Your task to perform on an android device: Open privacy settings Image 0: 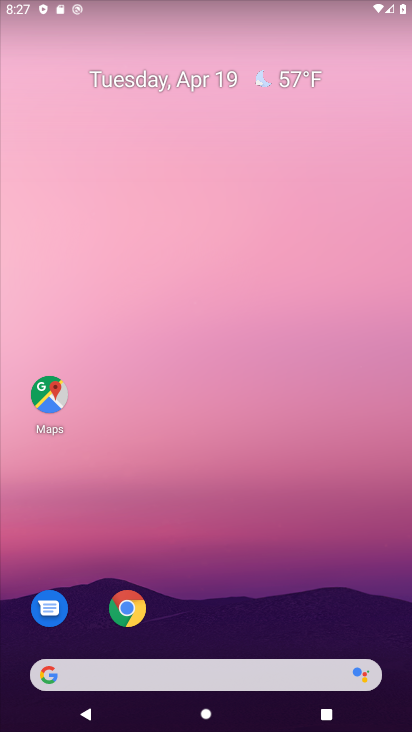
Step 0: click (126, 609)
Your task to perform on an android device: Open privacy settings Image 1: 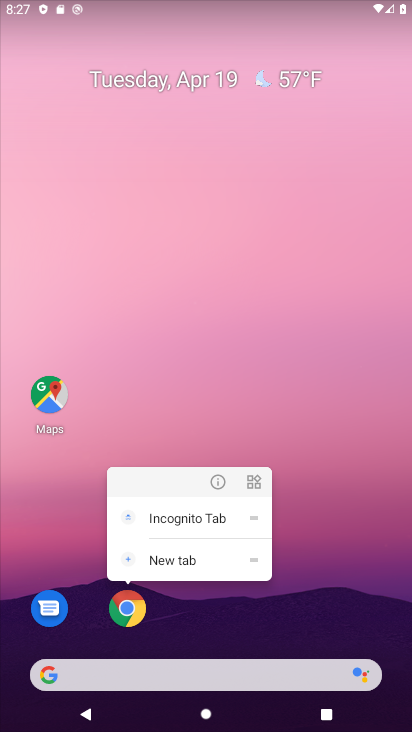
Step 1: click (126, 609)
Your task to perform on an android device: Open privacy settings Image 2: 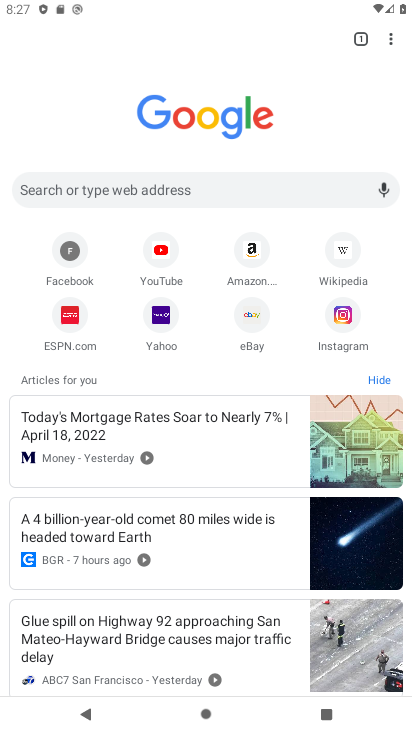
Step 2: click (392, 36)
Your task to perform on an android device: Open privacy settings Image 3: 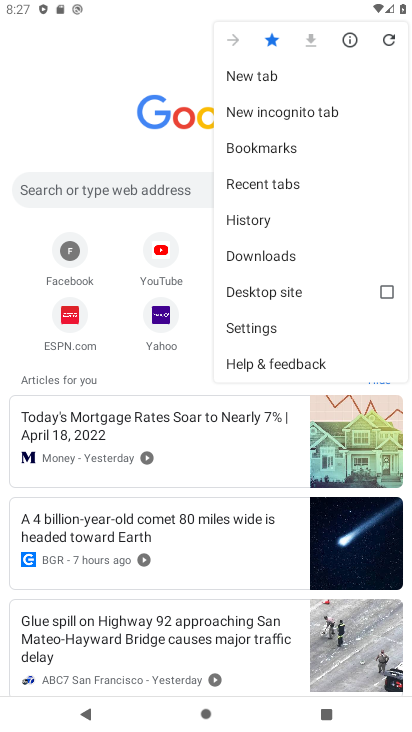
Step 3: click (262, 321)
Your task to perform on an android device: Open privacy settings Image 4: 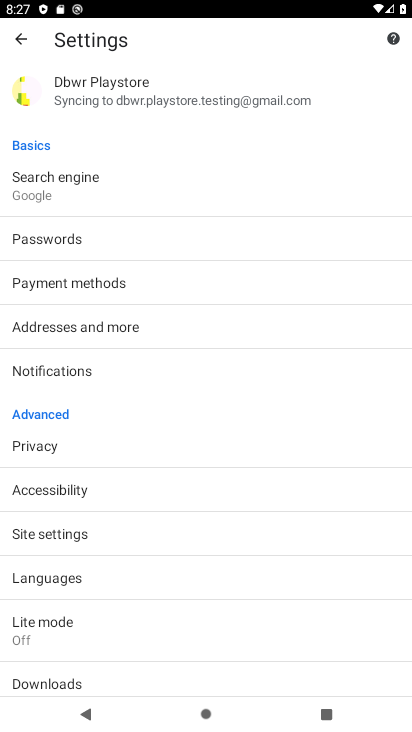
Step 4: click (69, 445)
Your task to perform on an android device: Open privacy settings Image 5: 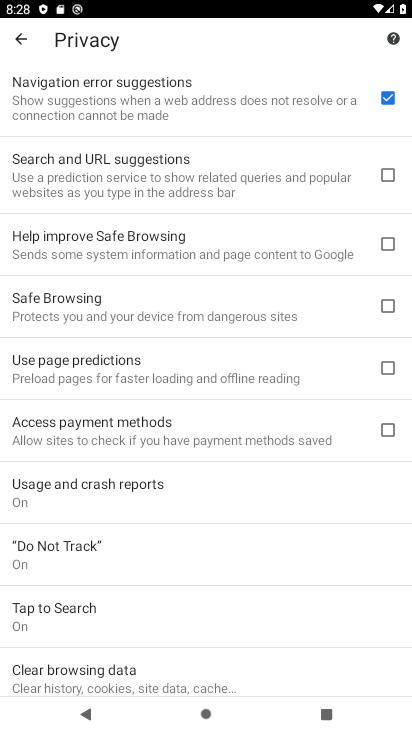
Step 5: task complete